Your task to perform on an android device: Open calendar and show me the fourth week of next month Image 0: 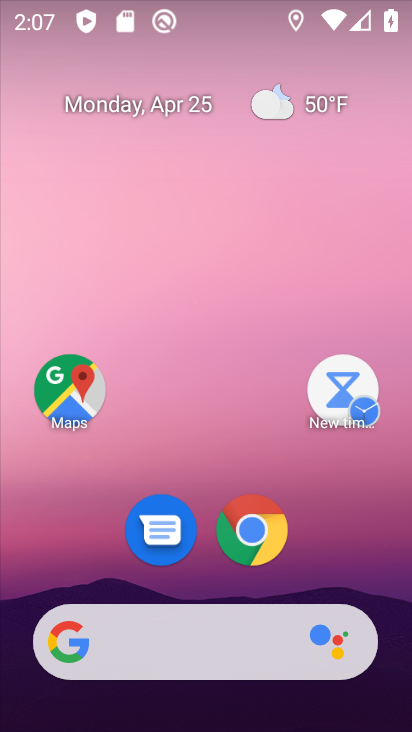
Step 0: drag from (197, 584) to (161, 3)
Your task to perform on an android device: Open calendar and show me the fourth week of next month Image 1: 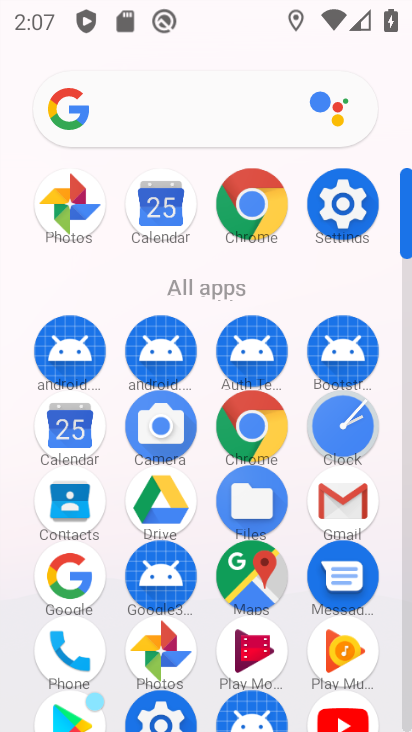
Step 1: click (71, 418)
Your task to perform on an android device: Open calendar and show me the fourth week of next month Image 2: 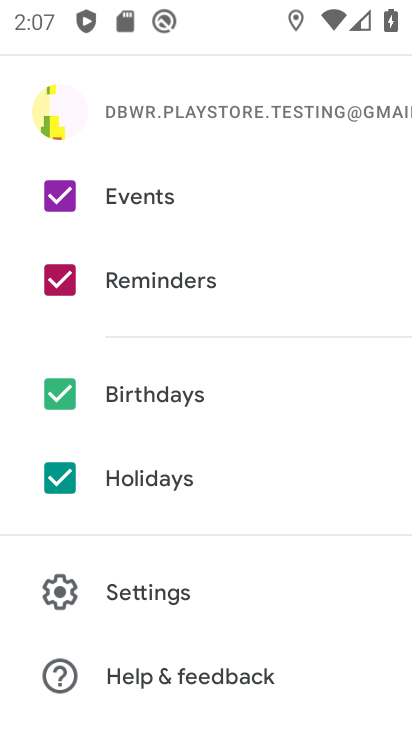
Step 2: drag from (73, 182) to (73, 626)
Your task to perform on an android device: Open calendar and show me the fourth week of next month Image 3: 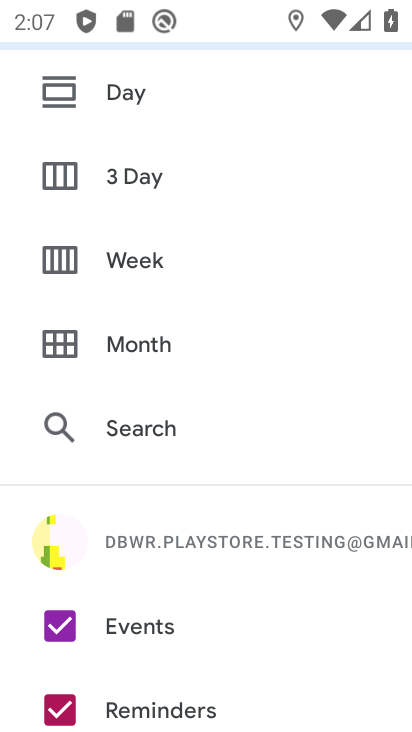
Step 3: drag from (136, 233) to (128, 646)
Your task to perform on an android device: Open calendar and show me the fourth week of next month Image 4: 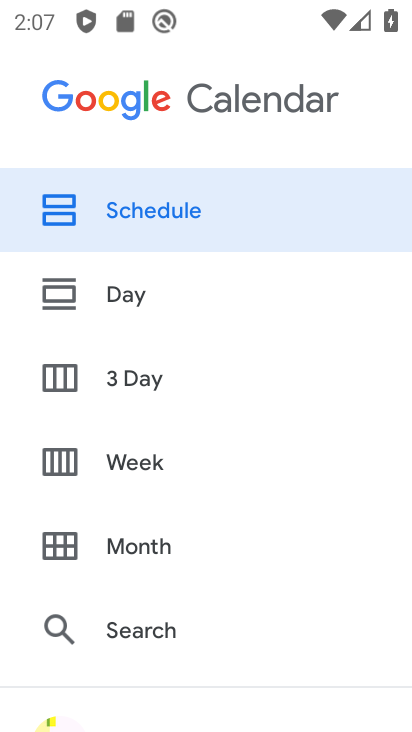
Step 4: click (130, 461)
Your task to perform on an android device: Open calendar and show me the fourth week of next month Image 5: 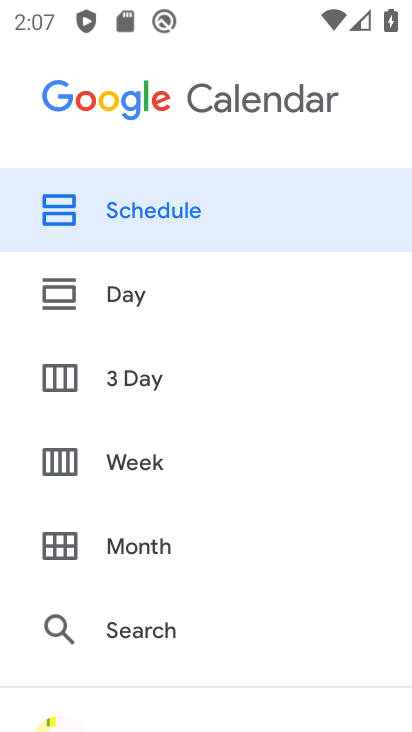
Step 5: click (156, 460)
Your task to perform on an android device: Open calendar and show me the fourth week of next month Image 6: 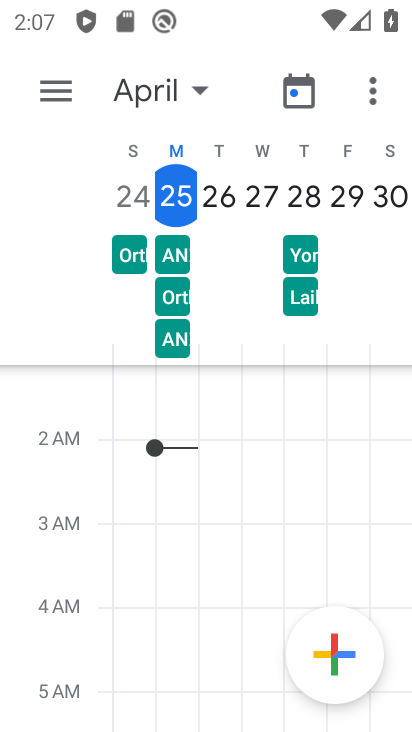
Step 6: task complete